Your task to perform on an android device: turn off javascript in the chrome app Image 0: 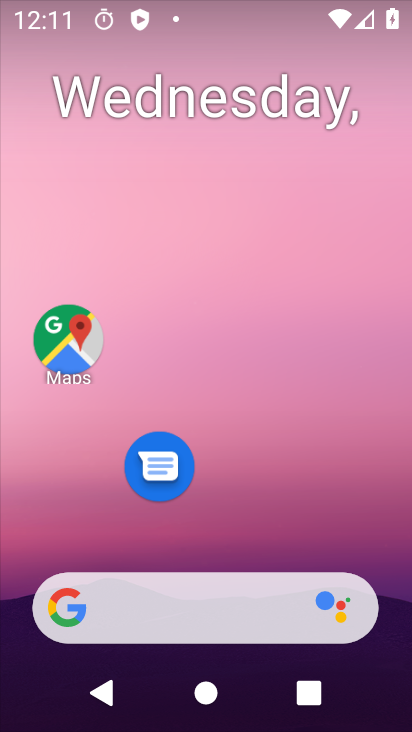
Step 0: click (246, 212)
Your task to perform on an android device: turn off javascript in the chrome app Image 1: 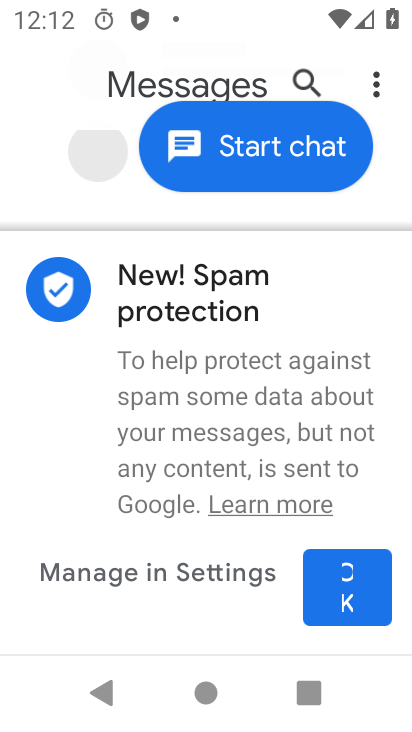
Step 1: click (373, 105)
Your task to perform on an android device: turn off javascript in the chrome app Image 2: 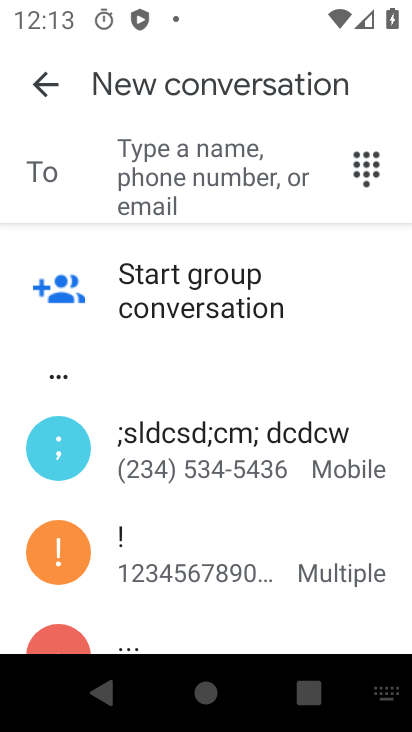
Step 2: press back button
Your task to perform on an android device: turn off javascript in the chrome app Image 3: 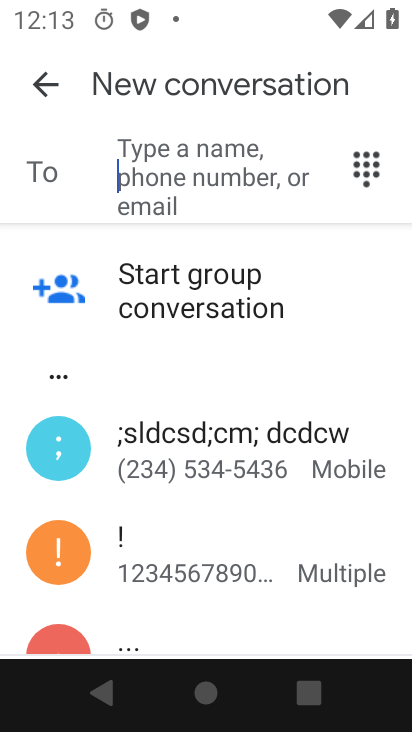
Step 3: press back button
Your task to perform on an android device: turn off javascript in the chrome app Image 4: 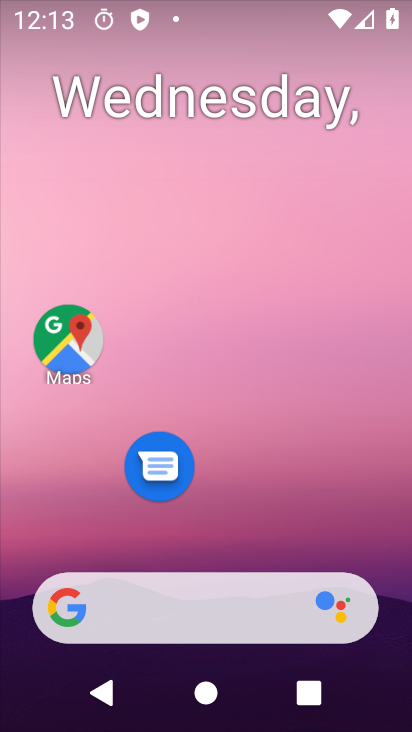
Step 4: drag from (280, 485) to (309, 6)
Your task to perform on an android device: turn off javascript in the chrome app Image 5: 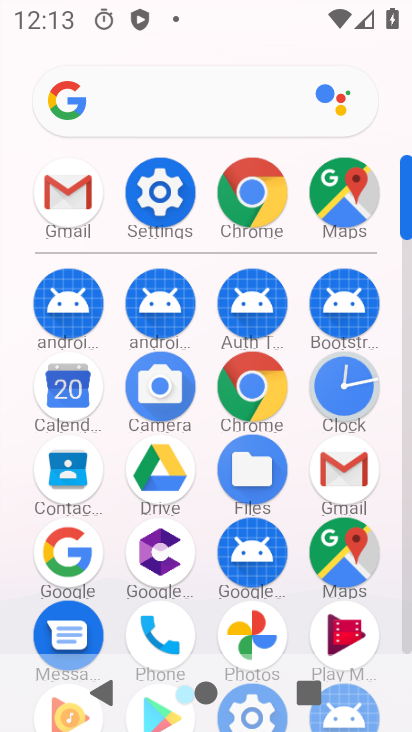
Step 5: click (262, 231)
Your task to perform on an android device: turn off javascript in the chrome app Image 6: 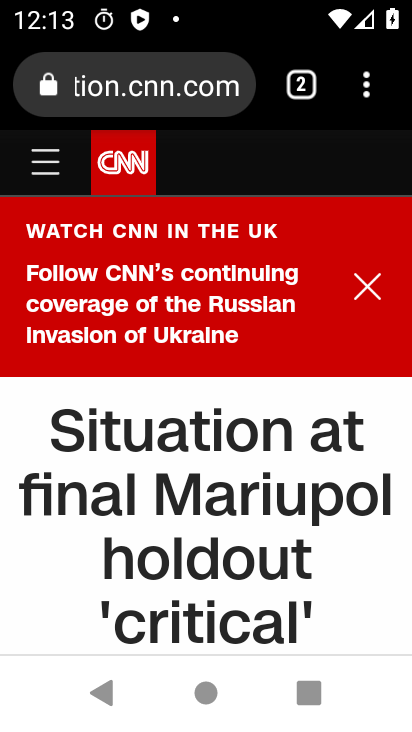
Step 6: click (353, 85)
Your task to perform on an android device: turn off javascript in the chrome app Image 7: 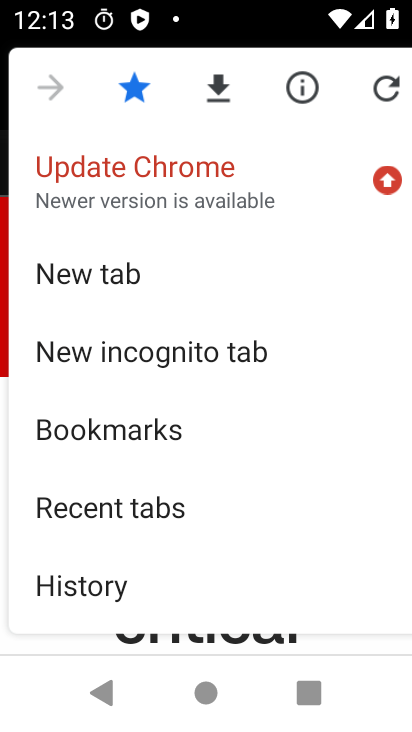
Step 7: drag from (210, 525) to (303, 135)
Your task to perform on an android device: turn off javascript in the chrome app Image 8: 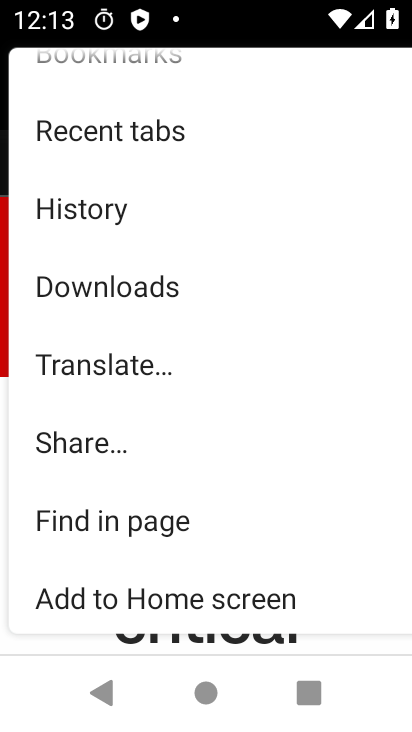
Step 8: drag from (204, 543) to (310, 258)
Your task to perform on an android device: turn off javascript in the chrome app Image 9: 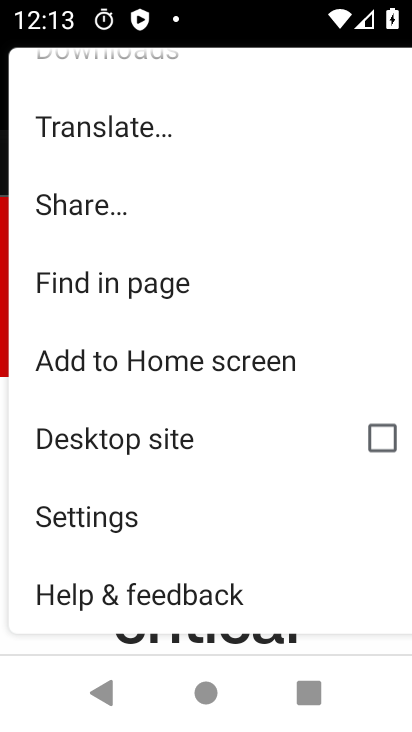
Step 9: click (170, 523)
Your task to perform on an android device: turn off javascript in the chrome app Image 10: 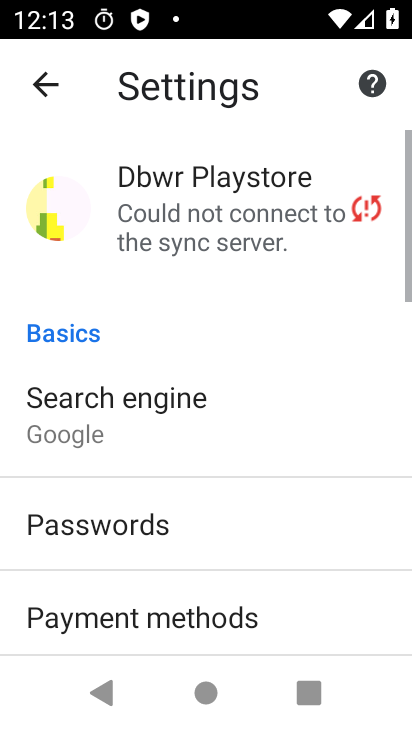
Step 10: drag from (181, 570) to (234, 139)
Your task to perform on an android device: turn off javascript in the chrome app Image 11: 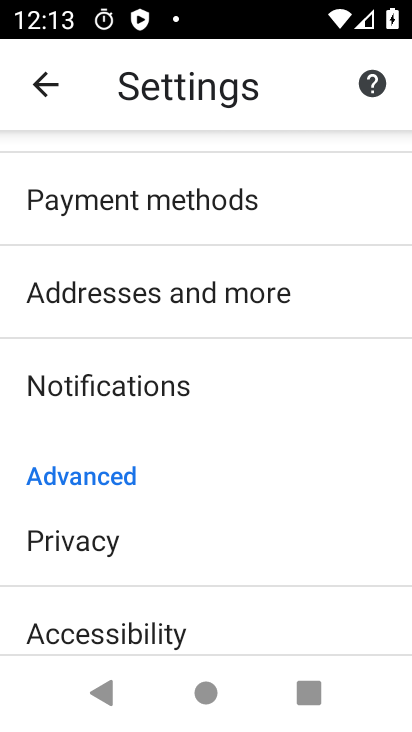
Step 11: drag from (226, 511) to (272, 282)
Your task to perform on an android device: turn off javascript in the chrome app Image 12: 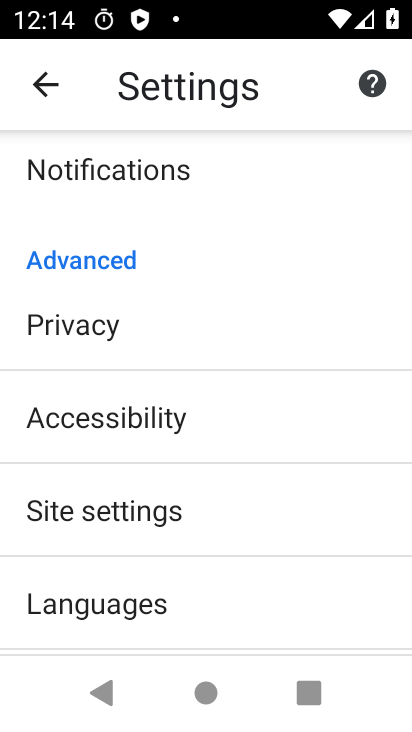
Step 12: click (229, 515)
Your task to perform on an android device: turn off javascript in the chrome app Image 13: 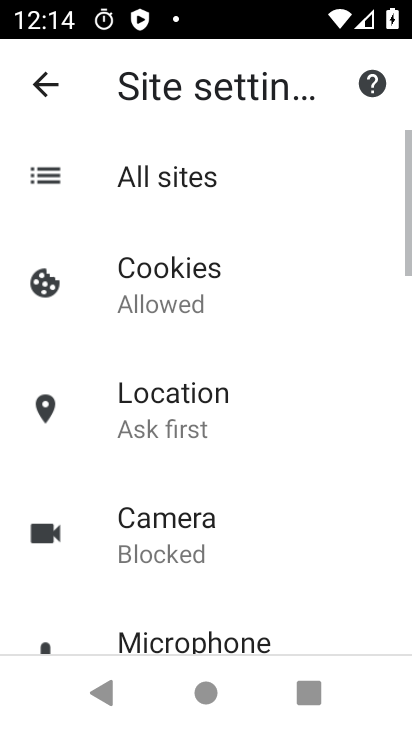
Step 13: drag from (263, 523) to (306, 145)
Your task to perform on an android device: turn off javascript in the chrome app Image 14: 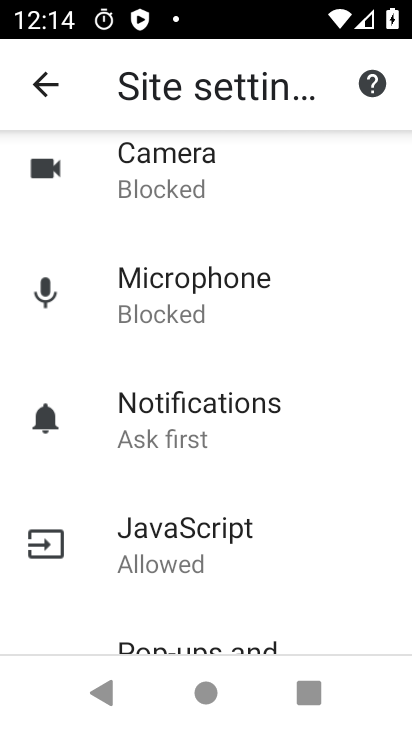
Step 14: click (234, 519)
Your task to perform on an android device: turn off javascript in the chrome app Image 15: 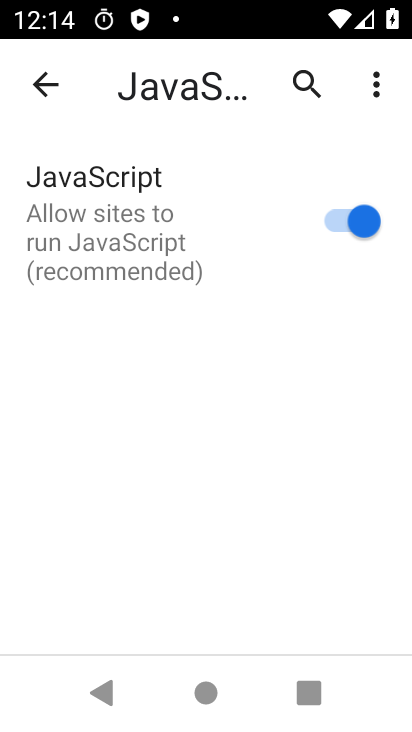
Step 15: click (336, 218)
Your task to perform on an android device: turn off javascript in the chrome app Image 16: 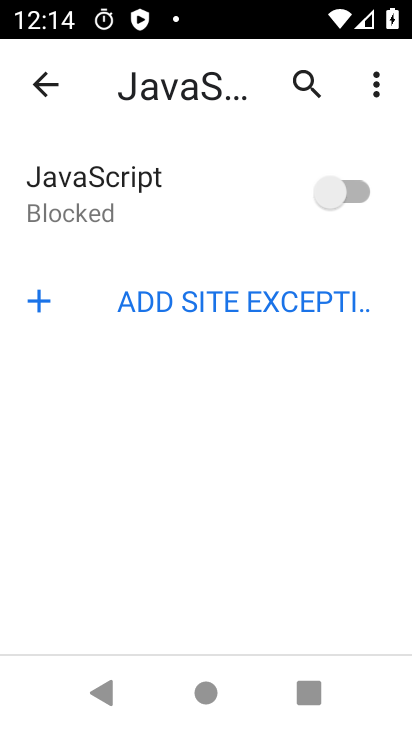
Step 16: task complete